Your task to perform on an android device: toggle location history Image 0: 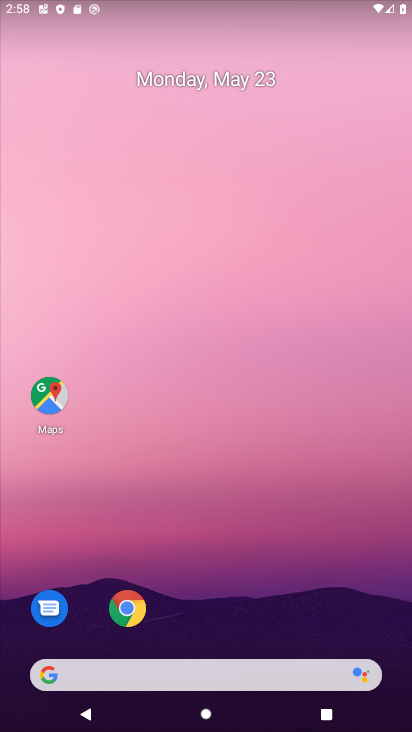
Step 0: drag from (226, 596) to (154, 64)
Your task to perform on an android device: toggle location history Image 1: 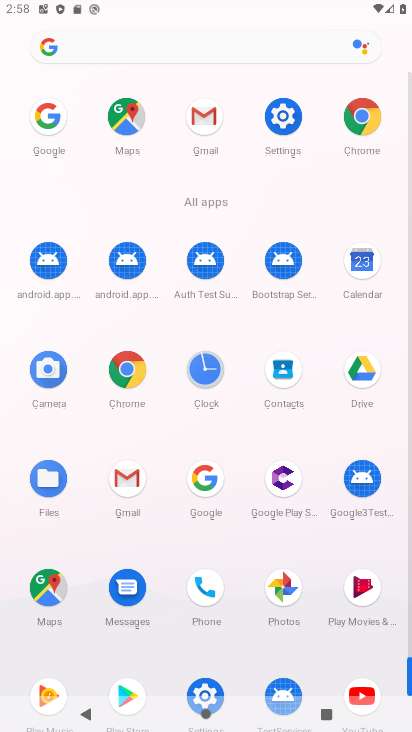
Step 1: click (282, 115)
Your task to perform on an android device: toggle location history Image 2: 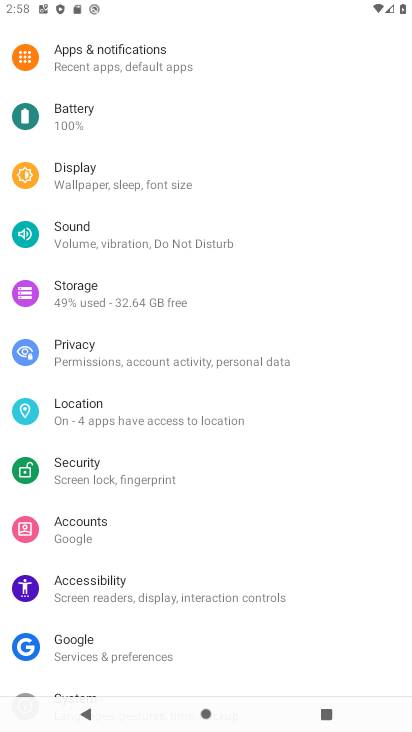
Step 2: click (136, 426)
Your task to perform on an android device: toggle location history Image 3: 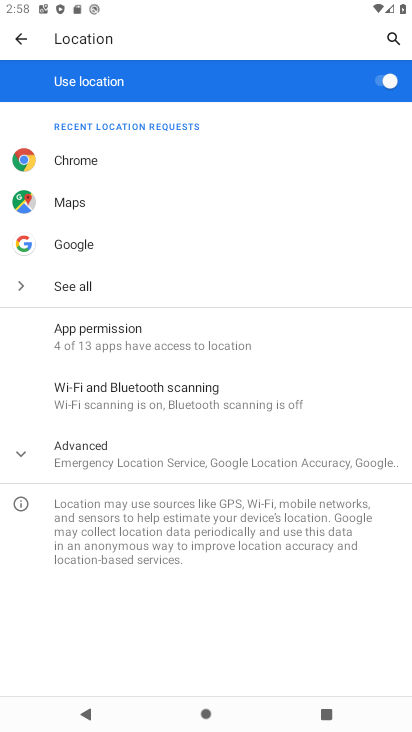
Step 3: click (151, 452)
Your task to perform on an android device: toggle location history Image 4: 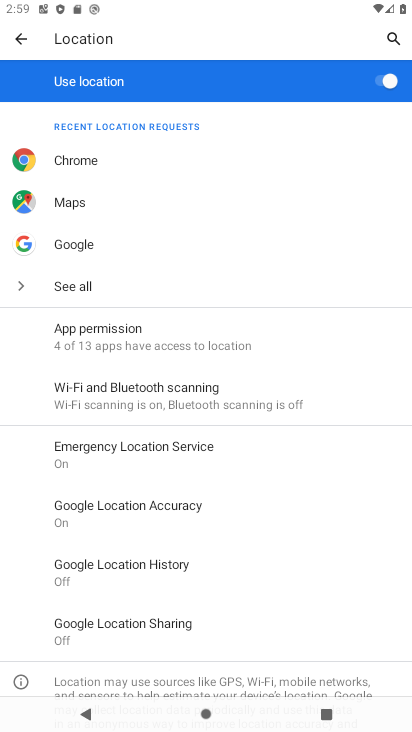
Step 4: click (156, 570)
Your task to perform on an android device: toggle location history Image 5: 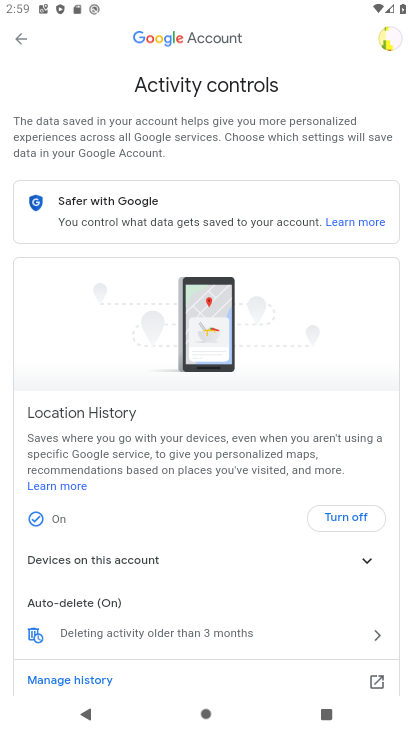
Step 5: task complete